Your task to perform on an android device: read, delete, or share a saved page in the chrome app Image 0: 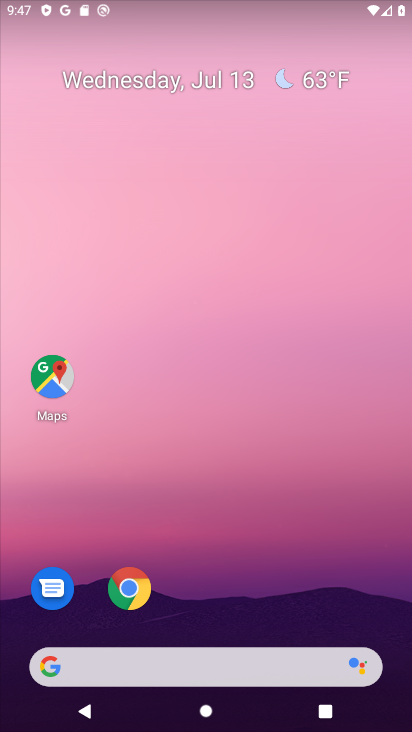
Step 0: click (132, 582)
Your task to perform on an android device: read, delete, or share a saved page in the chrome app Image 1: 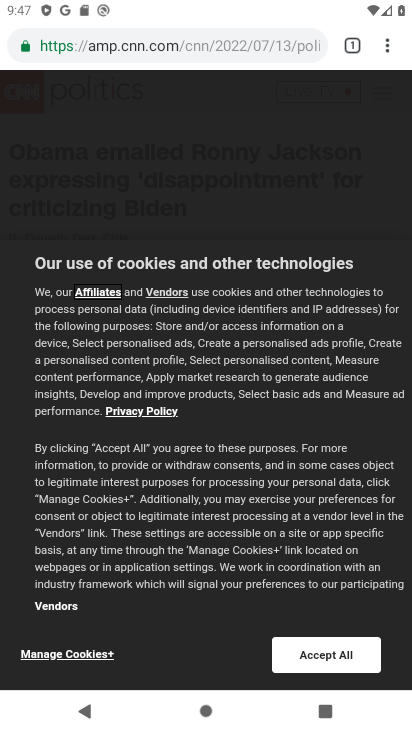
Step 1: click (390, 44)
Your task to perform on an android device: read, delete, or share a saved page in the chrome app Image 2: 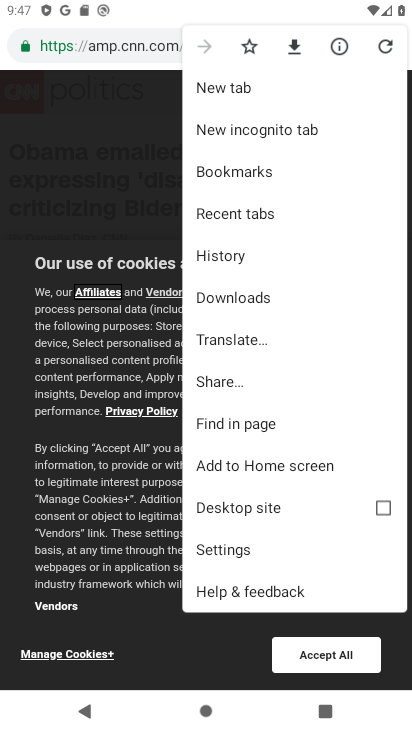
Step 2: click (240, 299)
Your task to perform on an android device: read, delete, or share a saved page in the chrome app Image 3: 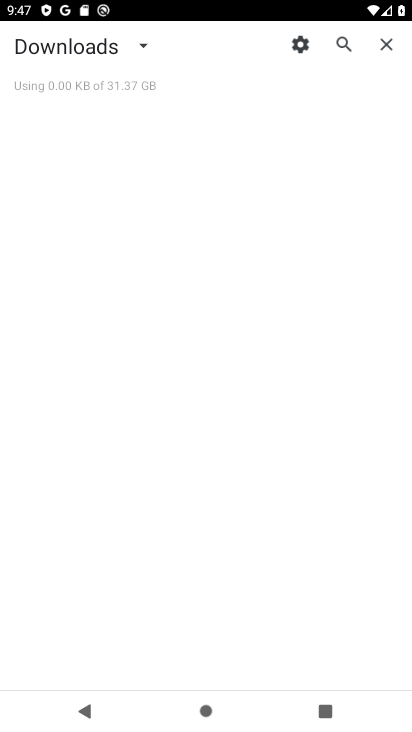
Step 3: task complete